Your task to perform on an android device: Go to eBay Image 0: 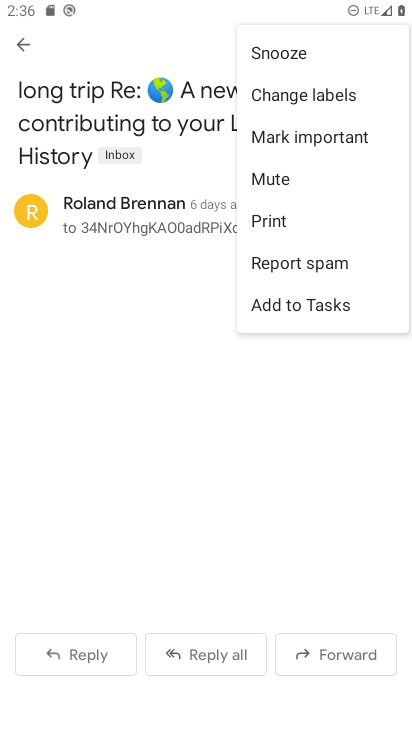
Step 0: press home button
Your task to perform on an android device: Go to eBay Image 1: 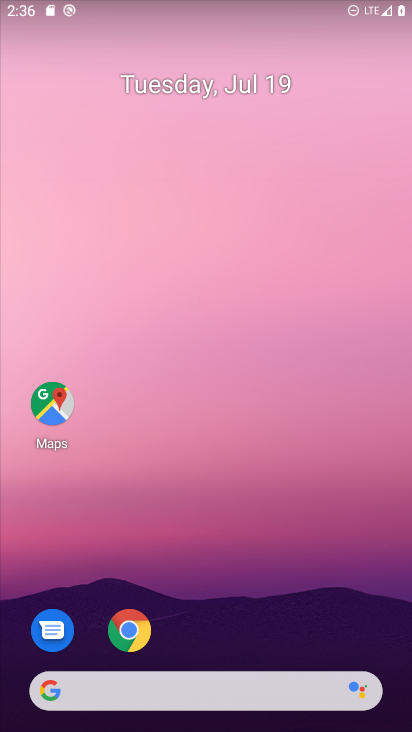
Step 1: click (130, 630)
Your task to perform on an android device: Go to eBay Image 2: 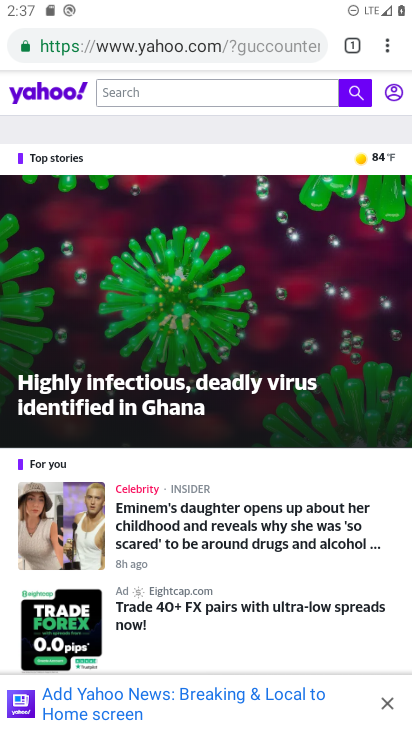
Step 2: click (282, 43)
Your task to perform on an android device: Go to eBay Image 3: 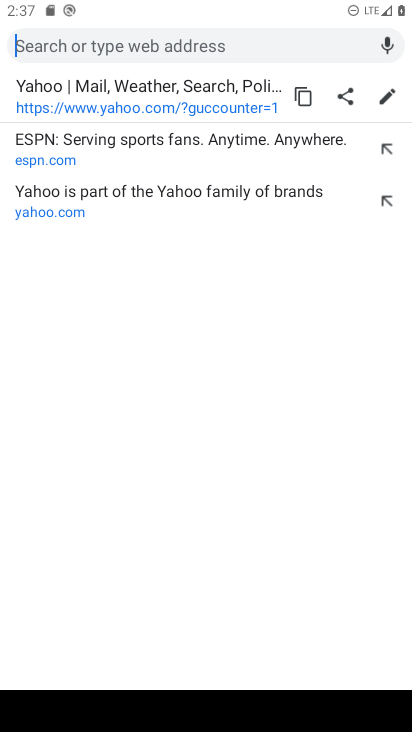
Step 3: type "eBay"
Your task to perform on an android device: Go to eBay Image 4: 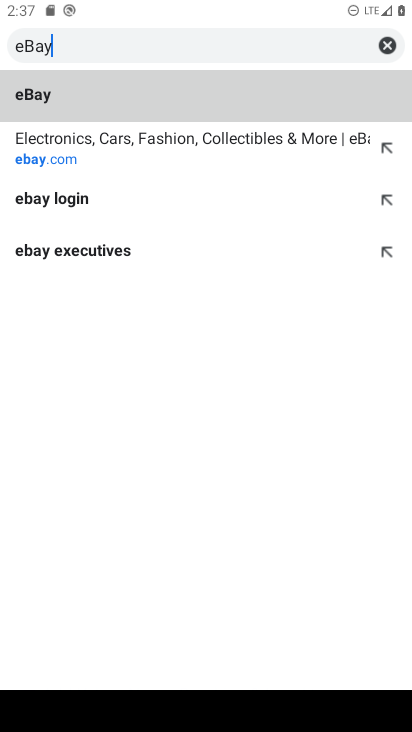
Step 4: click (39, 91)
Your task to perform on an android device: Go to eBay Image 5: 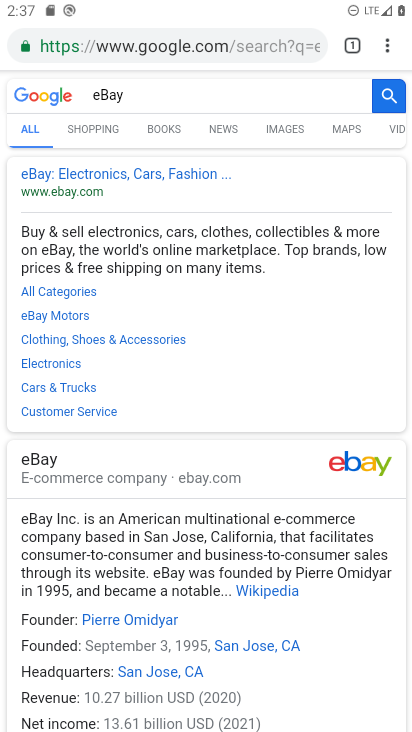
Step 5: click (65, 189)
Your task to perform on an android device: Go to eBay Image 6: 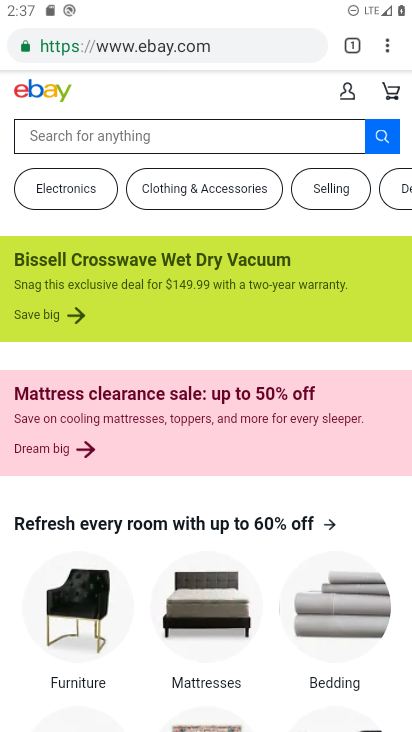
Step 6: task complete